Your task to perform on an android device: Open the map Image 0: 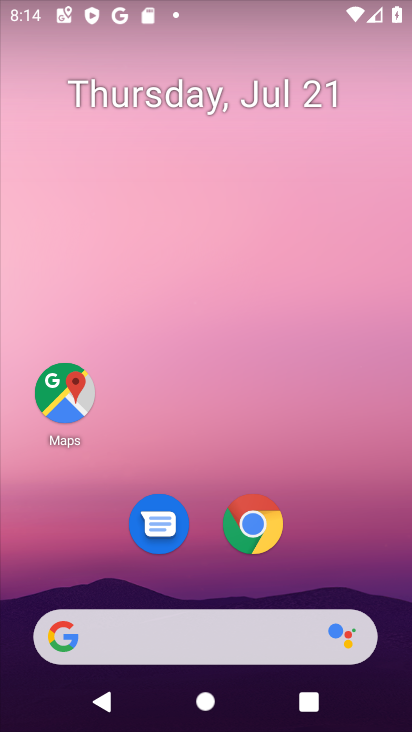
Step 0: click (72, 398)
Your task to perform on an android device: Open the map Image 1: 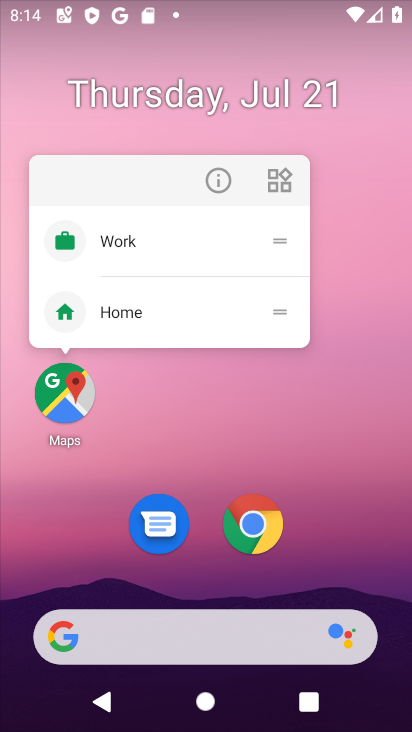
Step 1: click (67, 396)
Your task to perform on an android device: Open the map Image 2: 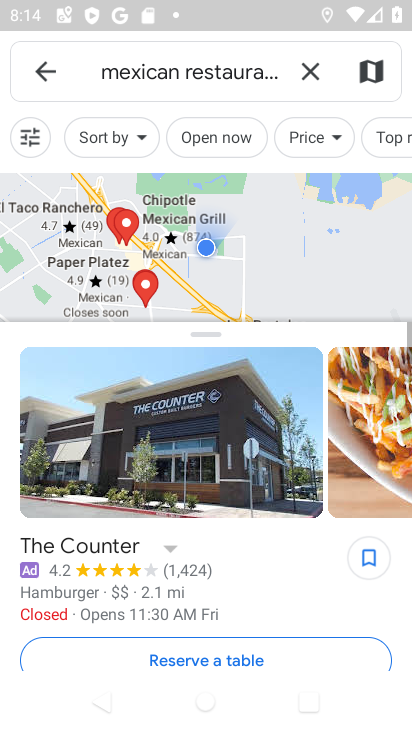
Step 2: click (47, 68)
Your task to perform on an android device: Open the map Image 3: 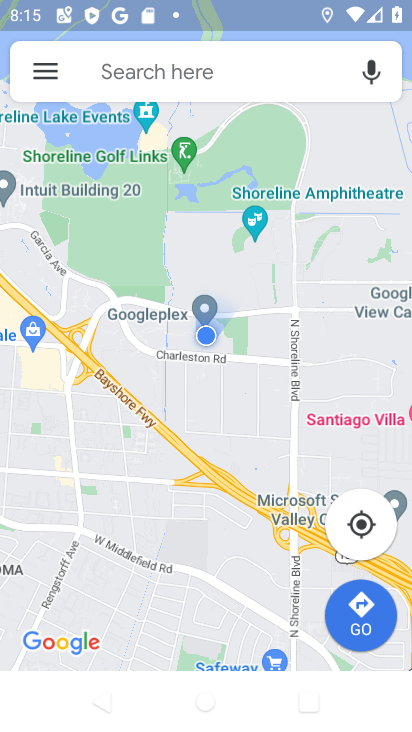
Step 3: task complete